Your task to perform on an android device: turn vacation reply on in the gmail app Image 0: 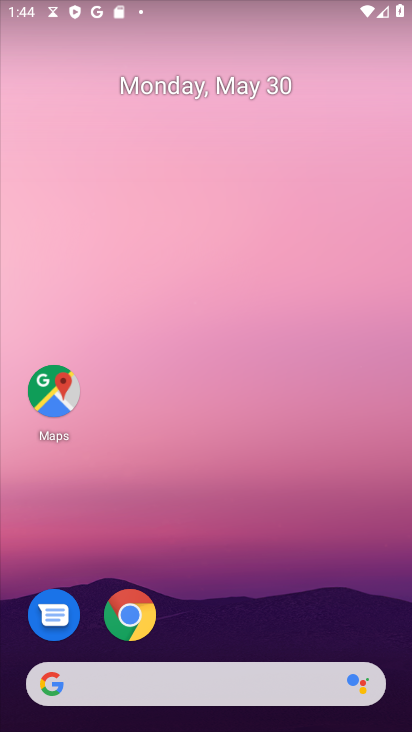
Step 0: drag from (336, 465) to (376, 52)
Your task to perform on an android device: turn vacation reply on in the gmail app Image 1: 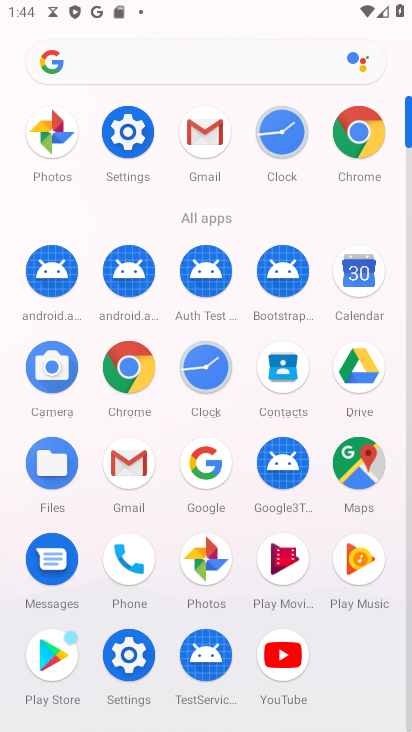
Step 1: click (208, 151)
Your task to perform on an android device: turn vacation reply on in the gmail app Image 2: 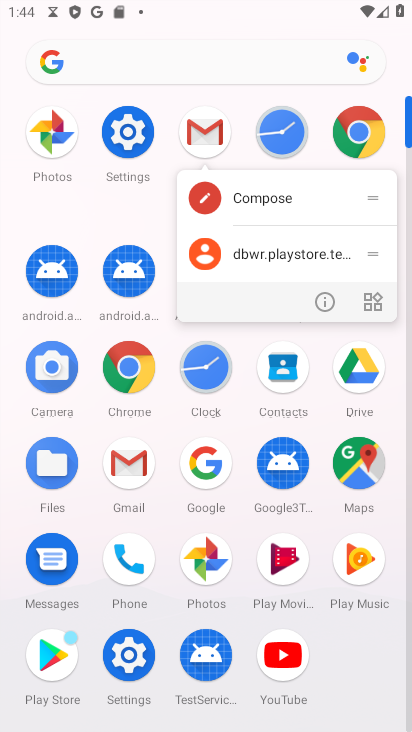
Step 2: click (212, 129)
Your task to perform on an android device: turn vacation reply on in the gmail app Image 3: 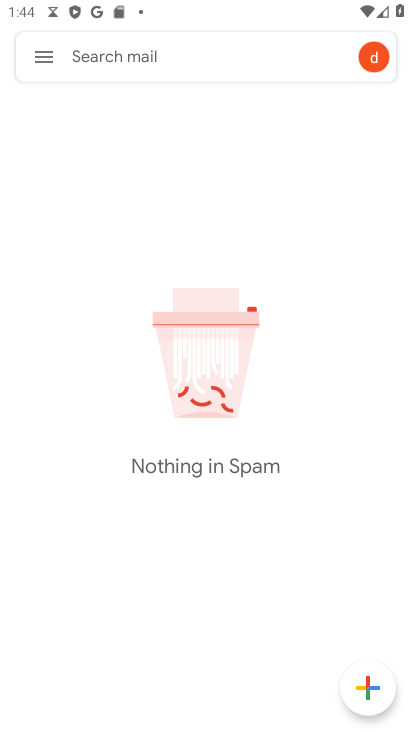
Step 3: click (47, 64)
Your task to perform on an android device: turn vacation reply on in the gmail app Image 4: 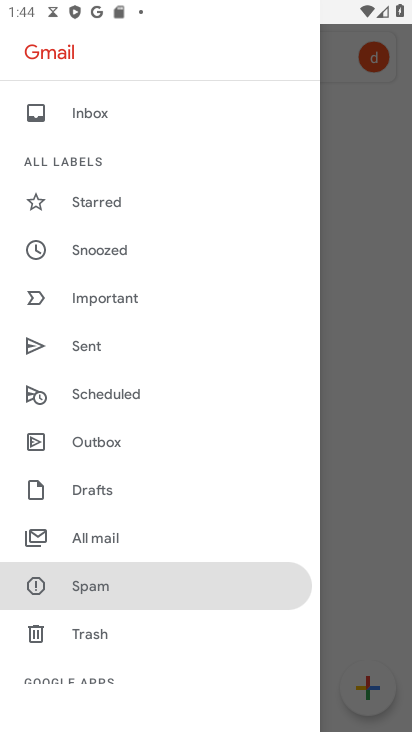
Step 4: drag from (113, 644) to (164, 154)
Your task to perform on an android device: turn vacation reply on in the gmail app Image 5: 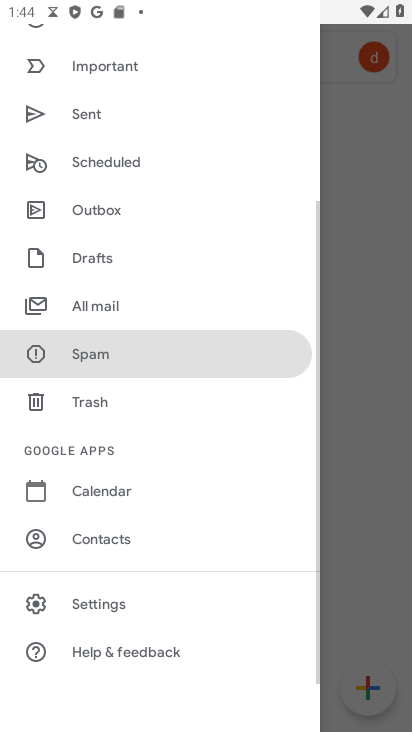
Step 5: click (102, 614)
Your task to perform on an android device: turn vacation reply on in the gmail app Image 6: 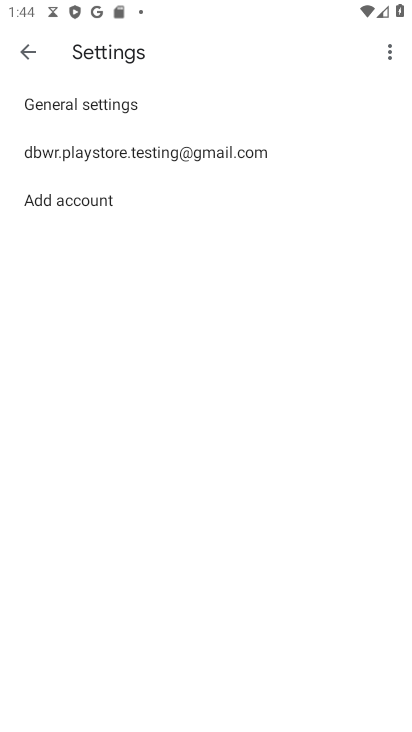
Step 6: click (102, 153)
Your task to perform on an android device: turn vacation reply on in the gmail app Image 7: 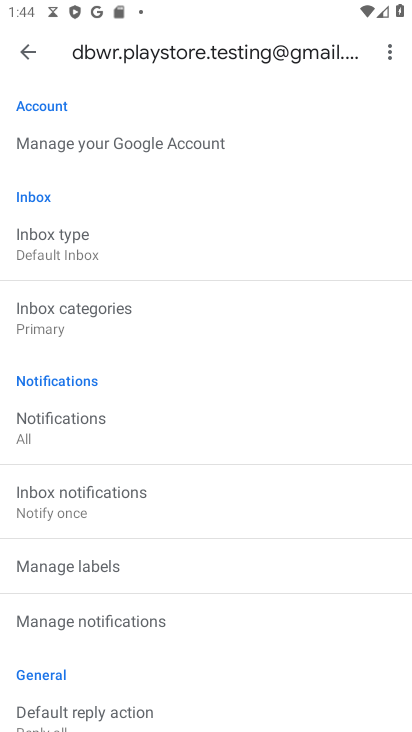
Step 7: drag from (144, 614) to (198, 269)
Your task to perform on an android device: turn vacation reply on in the gmail app Image 8: 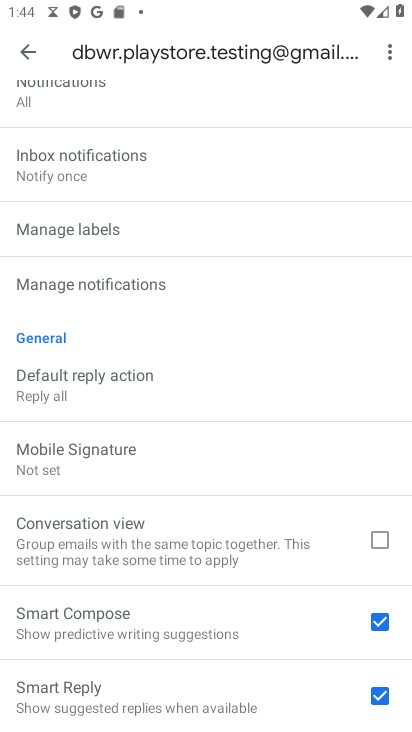
Step 8: drag from (150, 607) to (200, 282)
Your task to perform on an android device: turn vacation reply on in the gmail app Image 9: 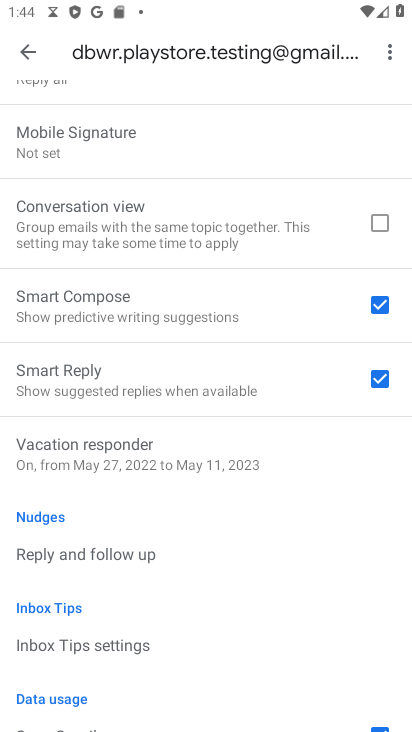
Step 9: click (124, 471)
Your task to perform on an android device: turn vacation reply on in the gmail app Image 10: 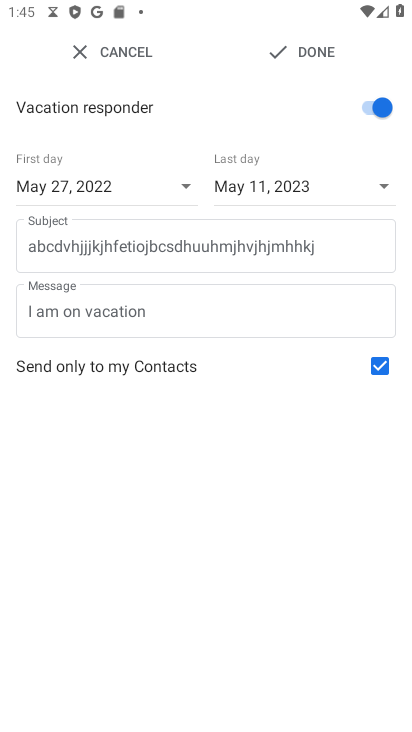
Step 10: task complete